Your task to perform on an android device: Open sound settings Image 0: 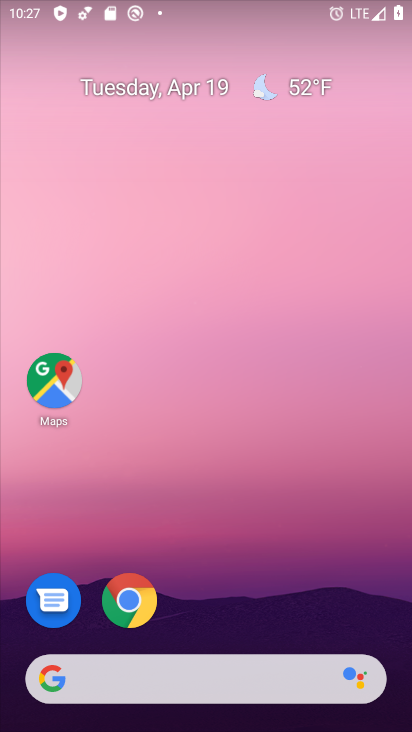
Step 0: drag from (267, 590) to (295, 156)
Your task to perform on an android device: Open sound settings Image 1: 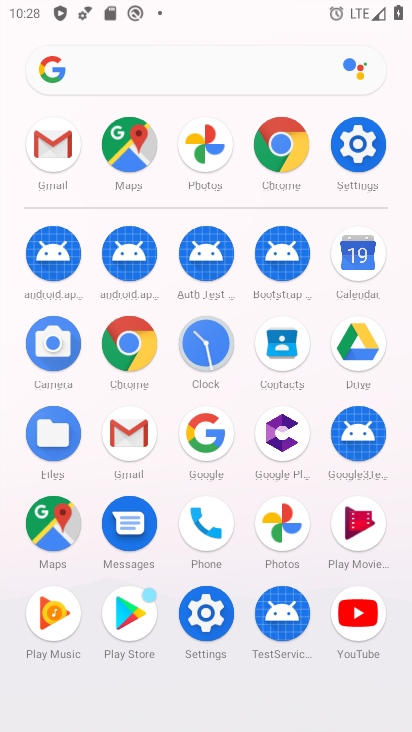
Step 1: click (213, 604)
Your task to perform on an android device: Open sound settings Image 2: 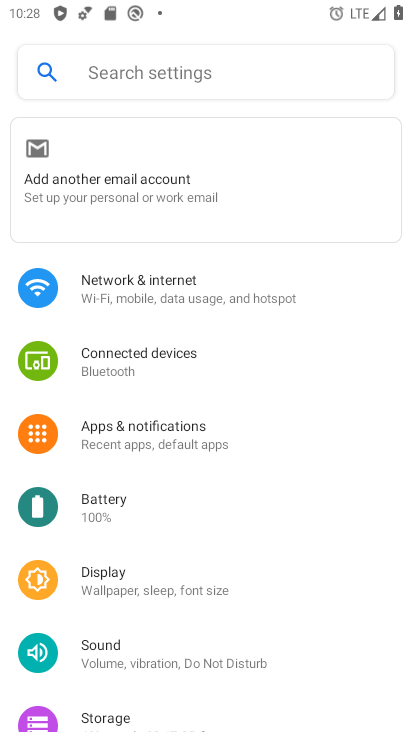
Step 2: click (156, 661)
Your task to perform on an android device: Open sound settings Image 3: 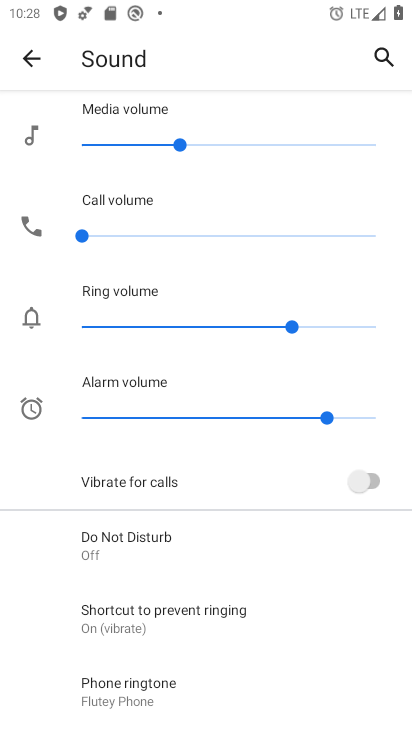
Step 3: task complete